Your task to perform on an android device: Show me popular games on the Play Store Image 0: 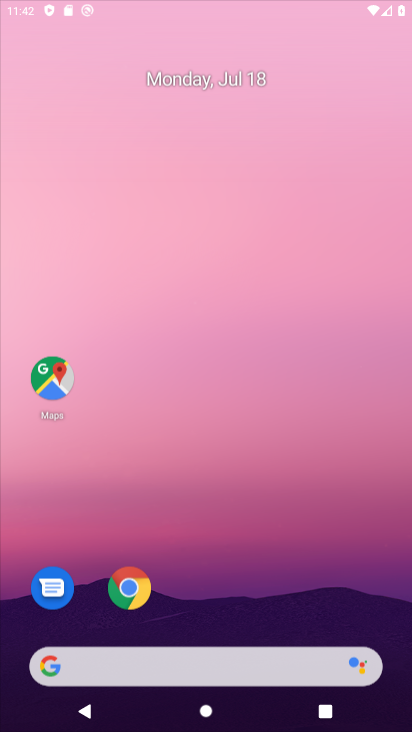
Step 0: drag from (205, 320) to (194, 267)
Your task to perform on an android device: Show me popular games on the Play Store Image 1: 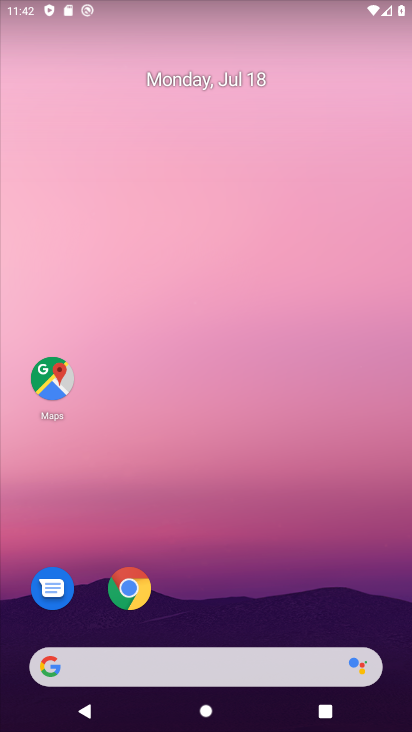
Step 1: drag from (208, 531) to (208, 213)
Your task to perform on an android device: Show me popular games on the Play Store Image 2: 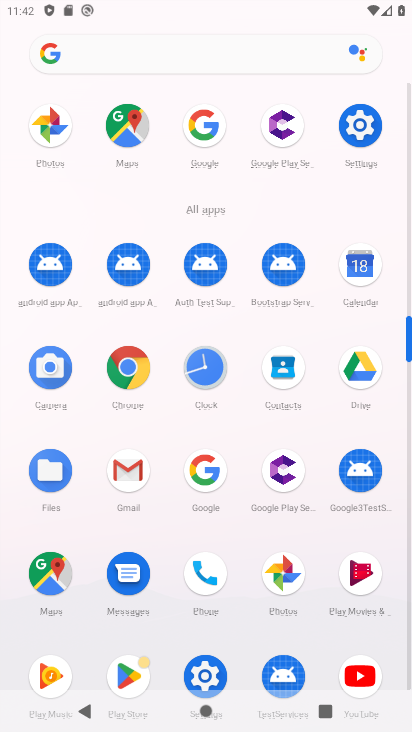
Step 2: click (124, 665)
Your task to perform on an android device: Show me popular games on the Play Store Image 3: 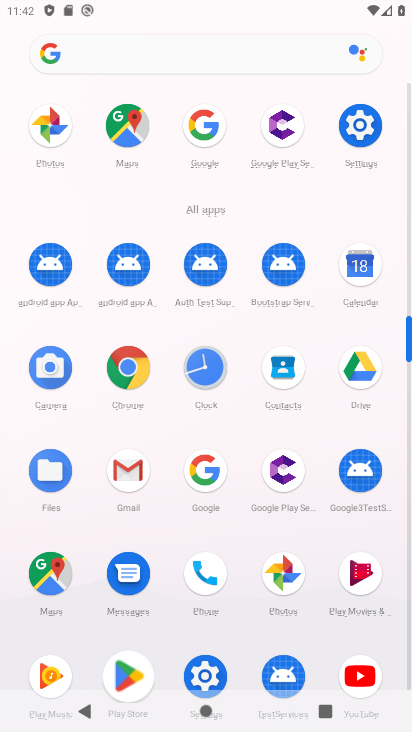
Step 3: click (128, 676)
Your task to perform on an android device: Show me popular games on the Play Store Image 4: 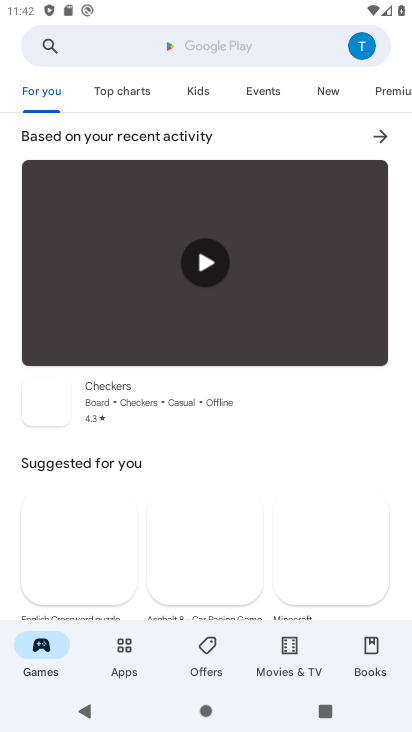
Step 4: click (200, 42)
Your task to perform on an android device: Show me popular games on the Play Store Image 5: 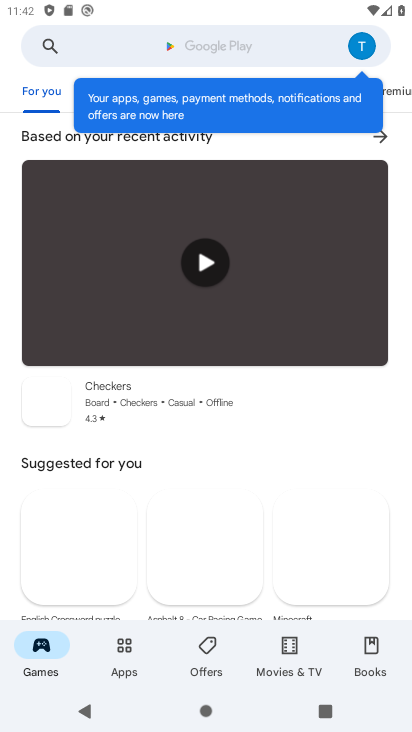
Step 5: click (203, 43)
Your task to perform on an android device: Show me popular games on the Play Store Image 6: 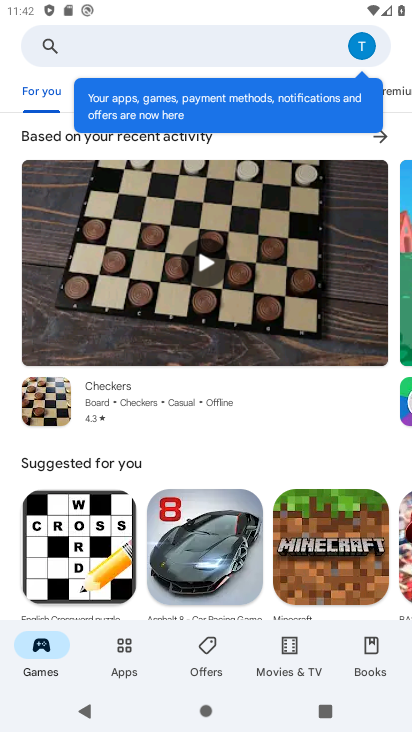
Step 6: click (206, 44)
Your task to perform on an android device: Show me popular games on the Play Store Image 7: 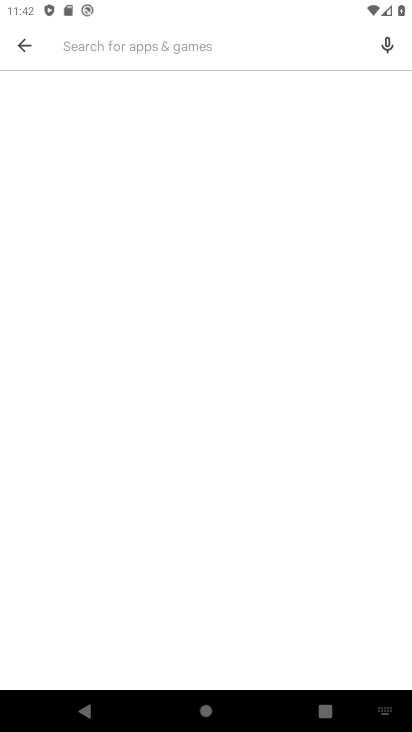
Step 7: type "popular games"
Your task to perform on an android device: Show me popular games on the Play Store Image 8: 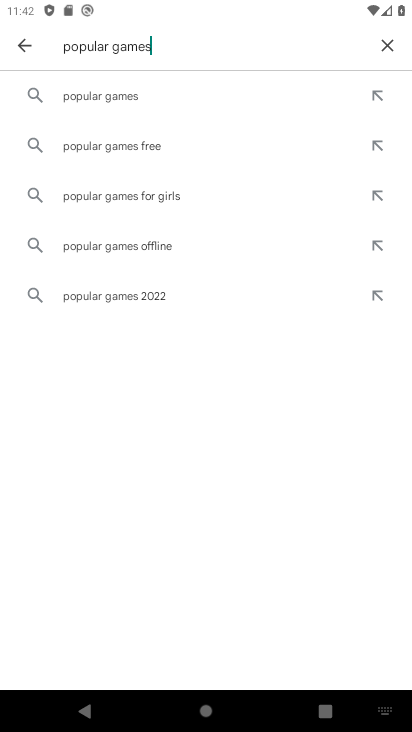
Step 8: click (96, 97)
Your task to perform on an android device: Show me popular games on the Play Store Image 9: 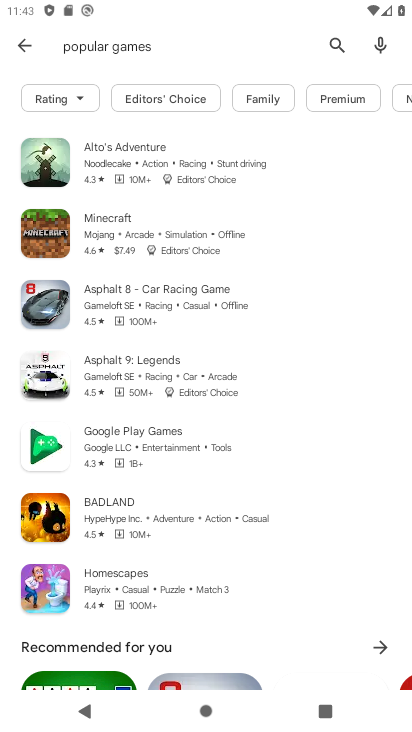
Step 9: task complete